Your task to perform on an android device: Search for logitech g pro on bestbuy, select the first entry, add it to the cart, then select checkout. Image 0: 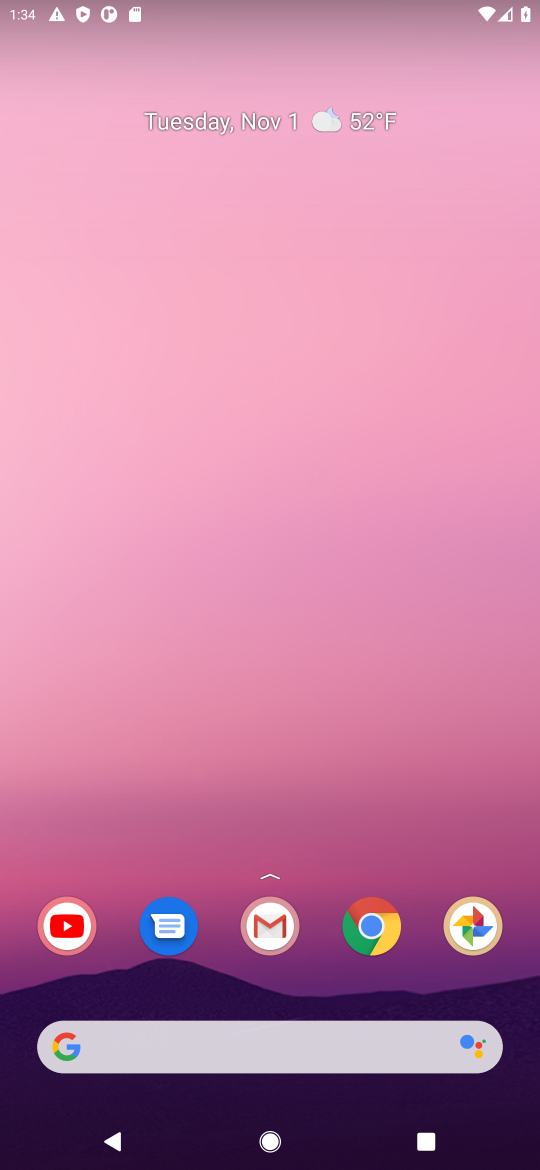
Step 0: click (387, 920)
Your task to perform on an android device: Search for logitech g pro on bestbuy, select the first entry, add it to the cart, then select checkout. Image 1: 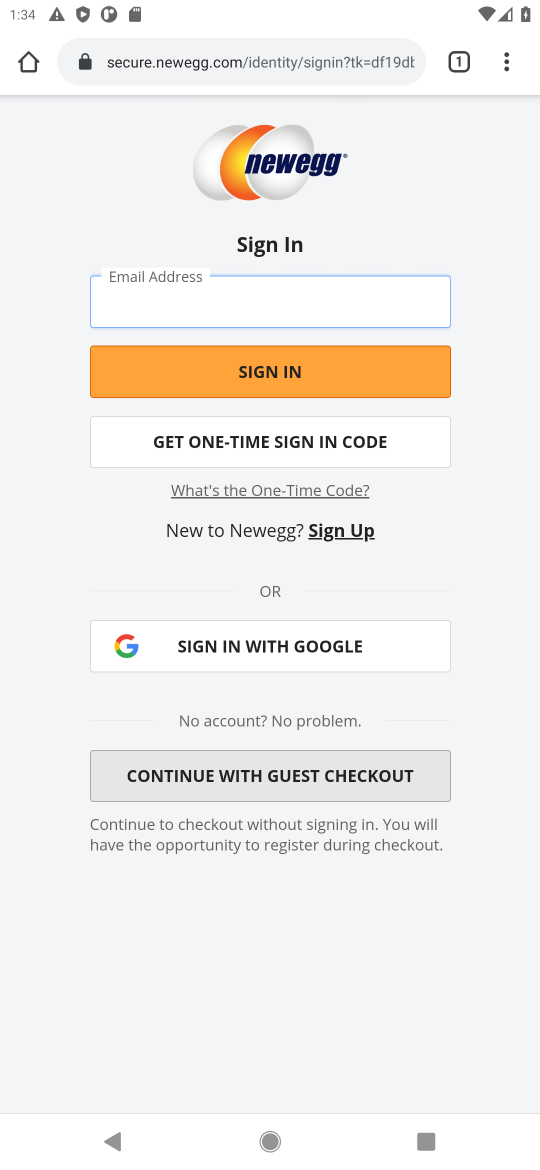
Step 1: click (213, 65)
Your task to perform on an android device: Search for logitech g pro on bestbuy, select the first entry, add it to the cart, then select checkout. Image 2: 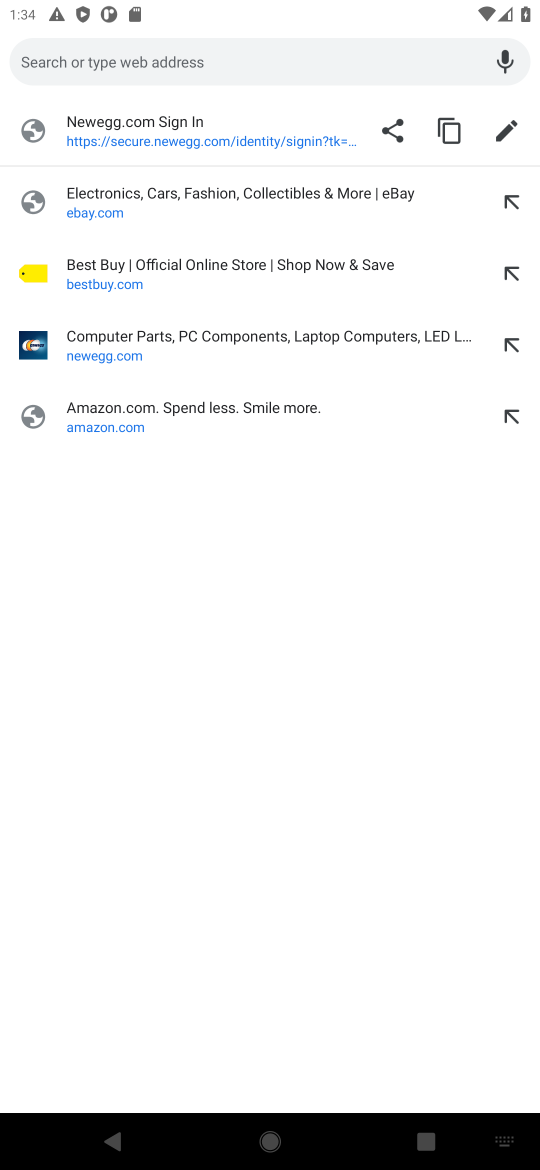
Step 2: type "bestbuy"
Your task to perform on an android device: Search for logitech g pro on bestbuy, select the first entry, add it to the cart, then select checkout. Image 3: 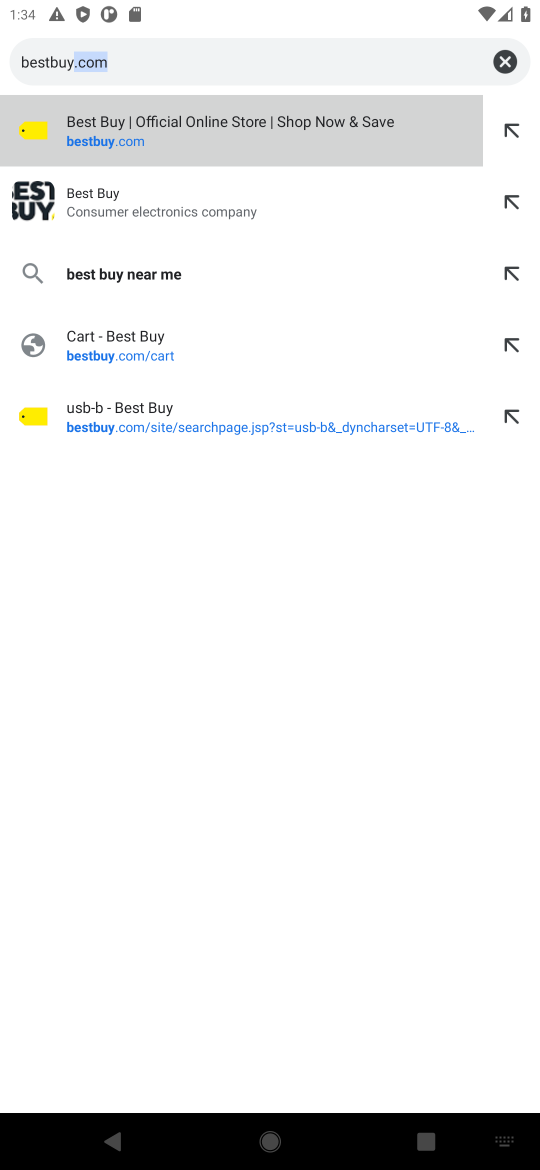
Step 3: press enter
Your task to perform on an android device: Search for logitech g pro on bestbuy, select the first entry, add it to the cart, then select checkout. Image 4: 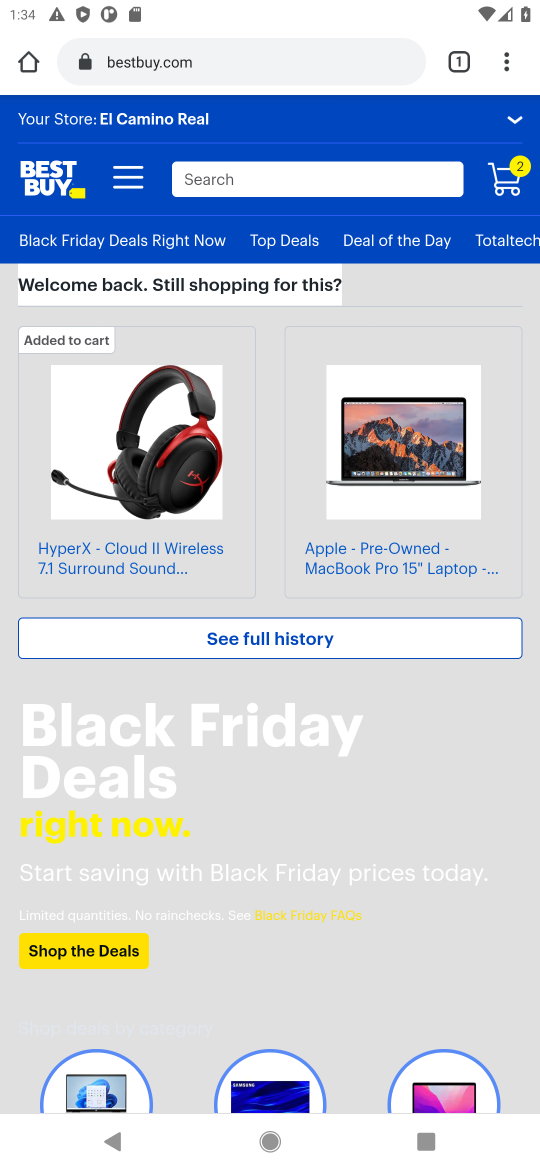
Step 4: click (254, 177)
Your task to perform on an android device: Search for logitech g pro on bestbuy, select the first entry, add it to the cart, then select checkout. Image 5: 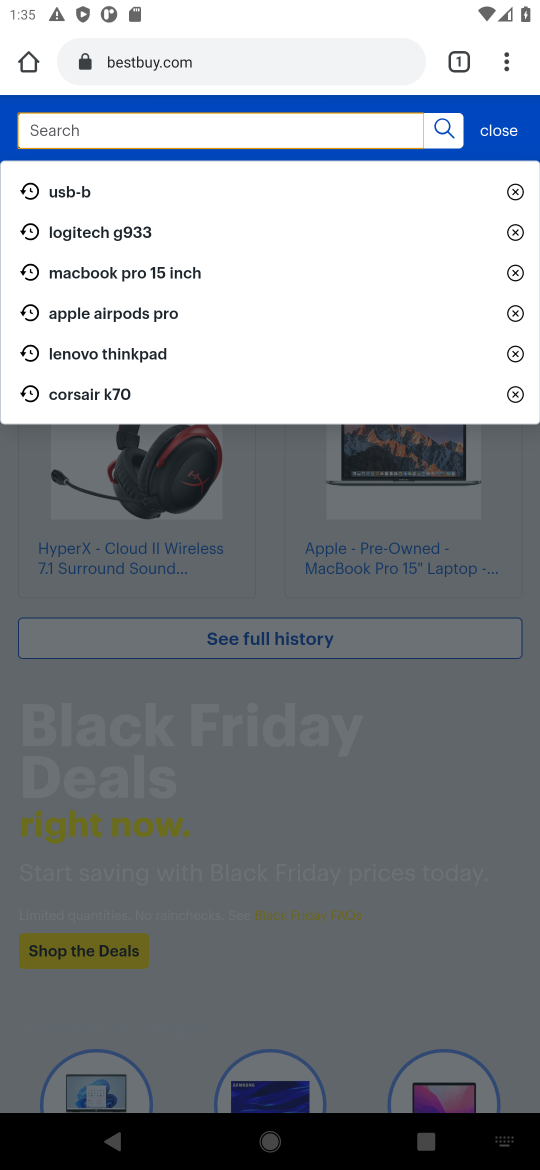
Step 5: type "logitech g pro"
Your task to perform on an android device: Search for logitech g pro on bestbuy, select the first entry, add it to the cart, then select checkout. Image 6: 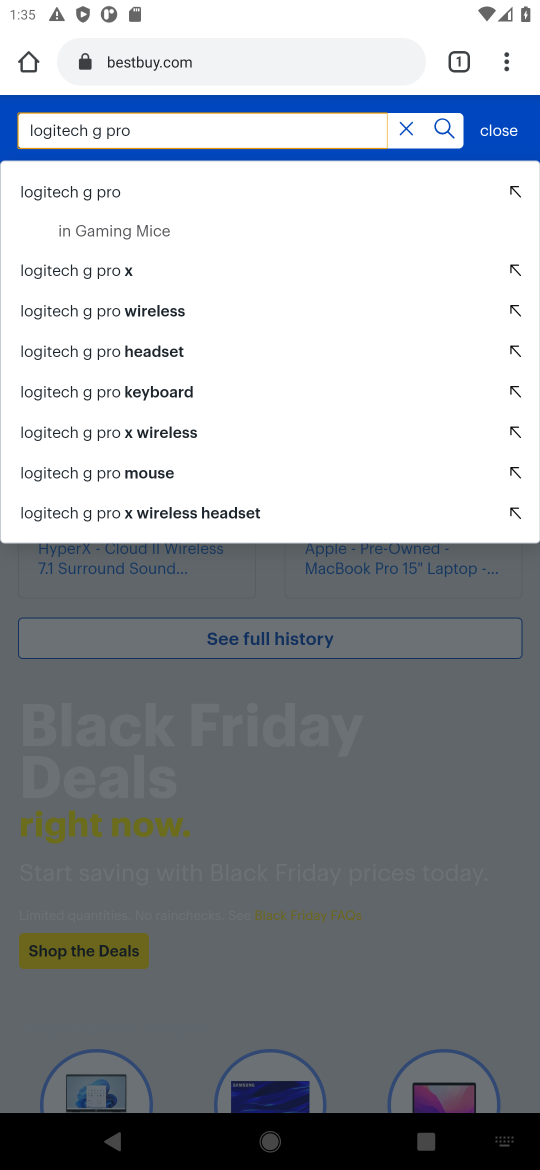
Step 6: click (62, 187)
Your task to perform on an android device: Search for logitech g pro on bestbuy, select the first entry, add it to the cart, then select checkout. Image 7: 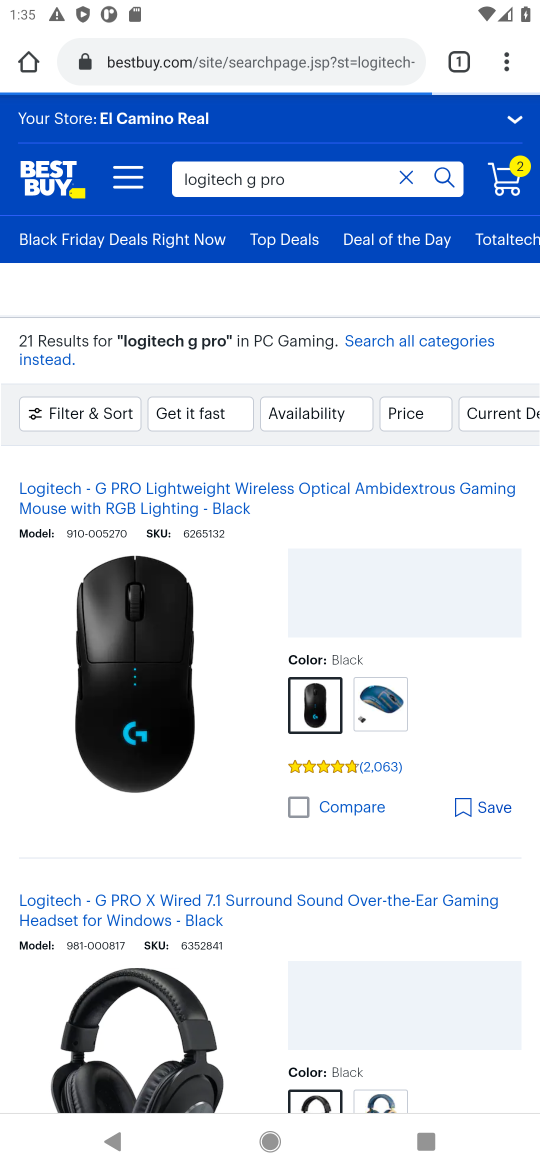
Step 7: click (95, 628)
Your task to perform on an android device: Search for logitech g pro on bestbuy, select the first entry, add it to the cart, then select checkout. Image 8: 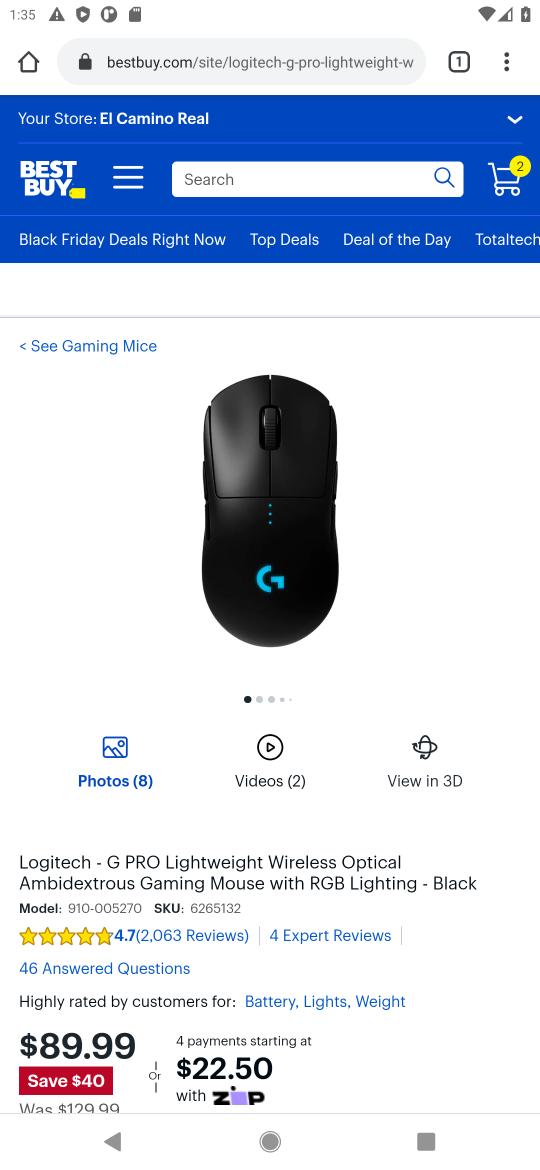
Step 8: drag from (416, 933) to (382, 141)
Your task to perform on an android device: Search for logitech g pro on bestbuy, select the first entry, add it to the cart, then select checkout. Image 9: 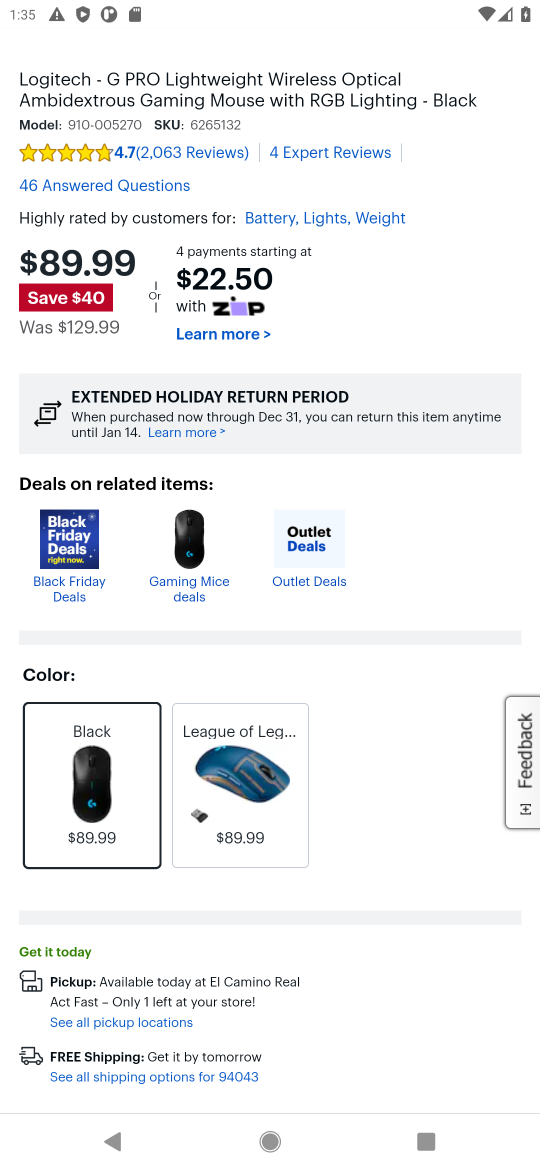
Step 9: drag from (353, 1040) to (337, 709)
Your task to perform on an android device: Search for logitech g pro on bestbuy, select the first entry, add it to the cart, then select checkout. Image 10: 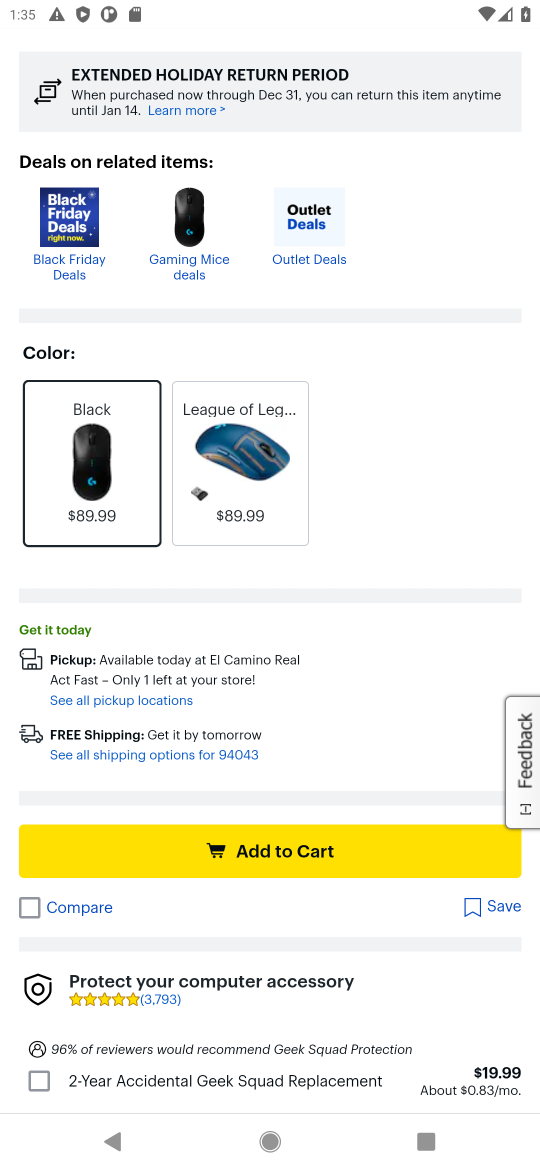
Step 10: click (248, 844)
Your task to perform on an android device: Search for logitech g pro on bestbuy, select the first entry, add it to the cart, then select checkout. Image 11: 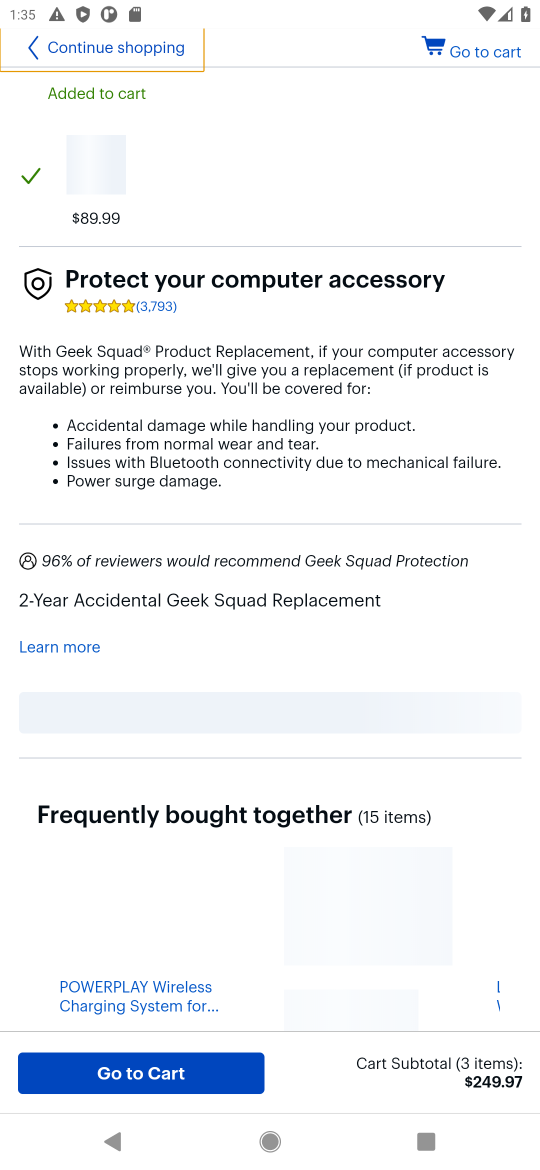
Step 11: click (126, 1072)
Your task to perform on an android device: Search for logitech g pro on bestbuy, select the first entry, add it to the cart, then select checkout. Image 12: 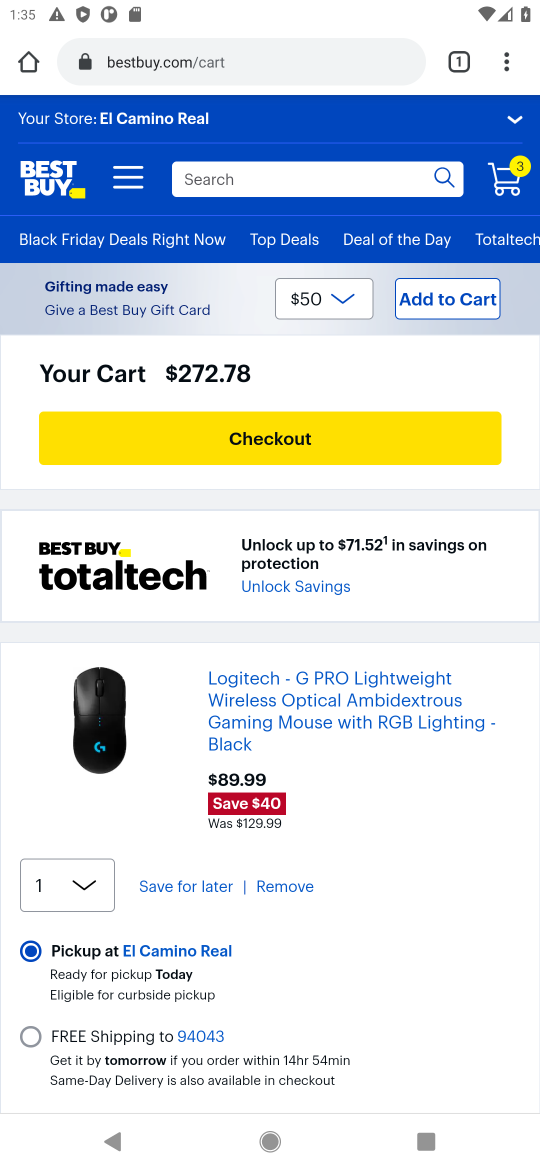
Step 12: click (345, 446)
Your task to perform on an android device: Search for logitech g pro on bestbuy, select the first entry, add it to the cart, then select checkout. Image 13: 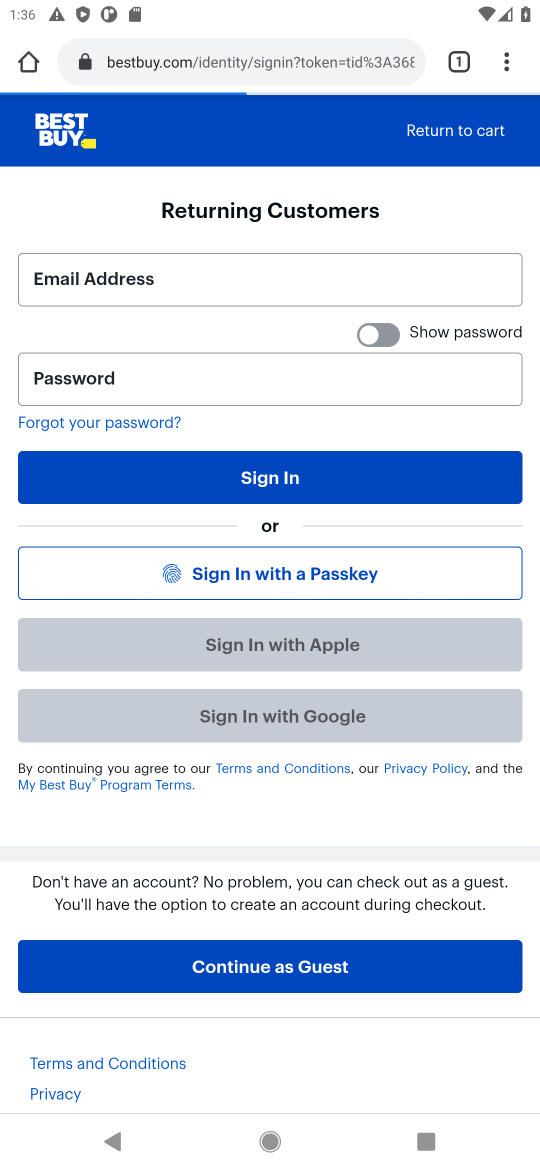
Step 13: task complete